Your task to perform on an android device: Open Google Chrome and click the shortcut for Amazon.com Image 0: 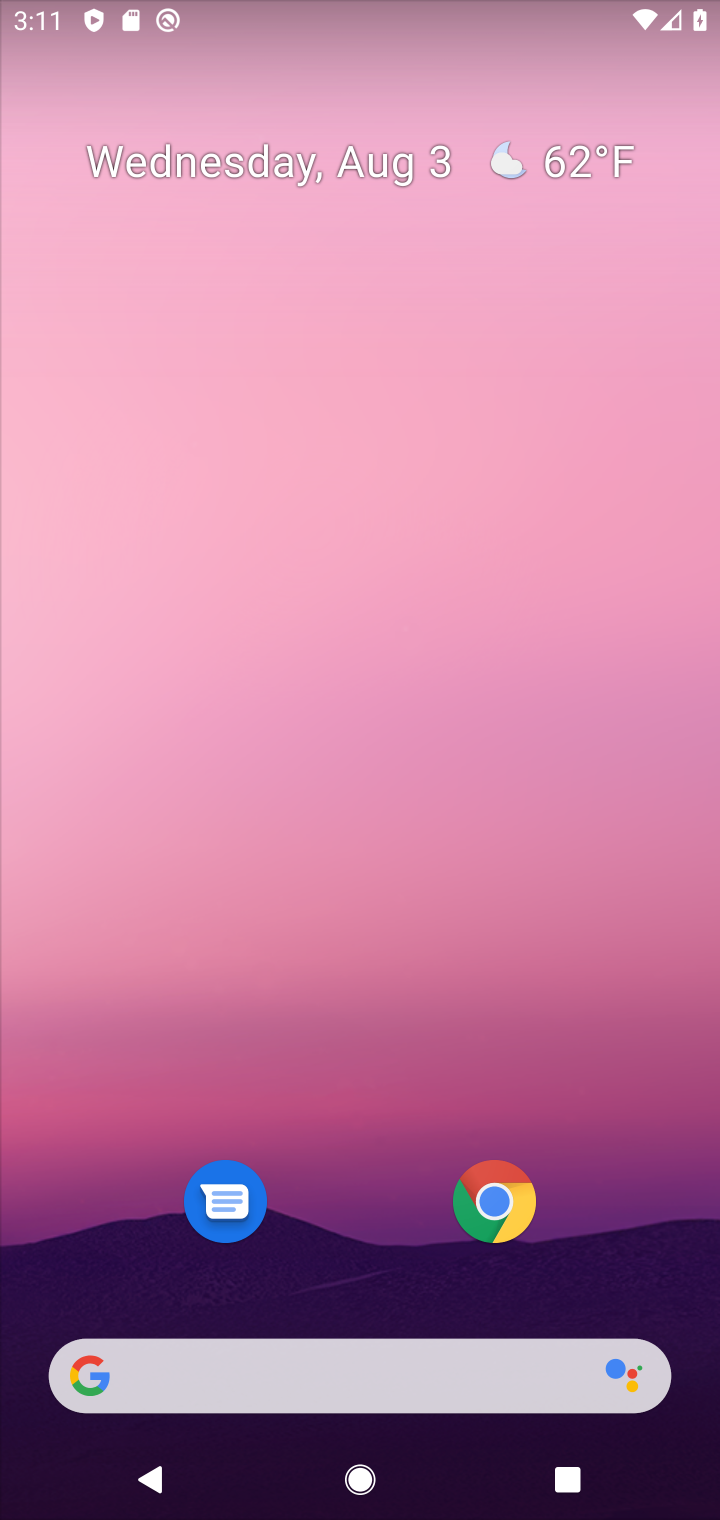
Step 0: click (511, 1207)
Your task to perform on an android device: Open Google Chrome and click the shortcut for Amazon.com Image 1: 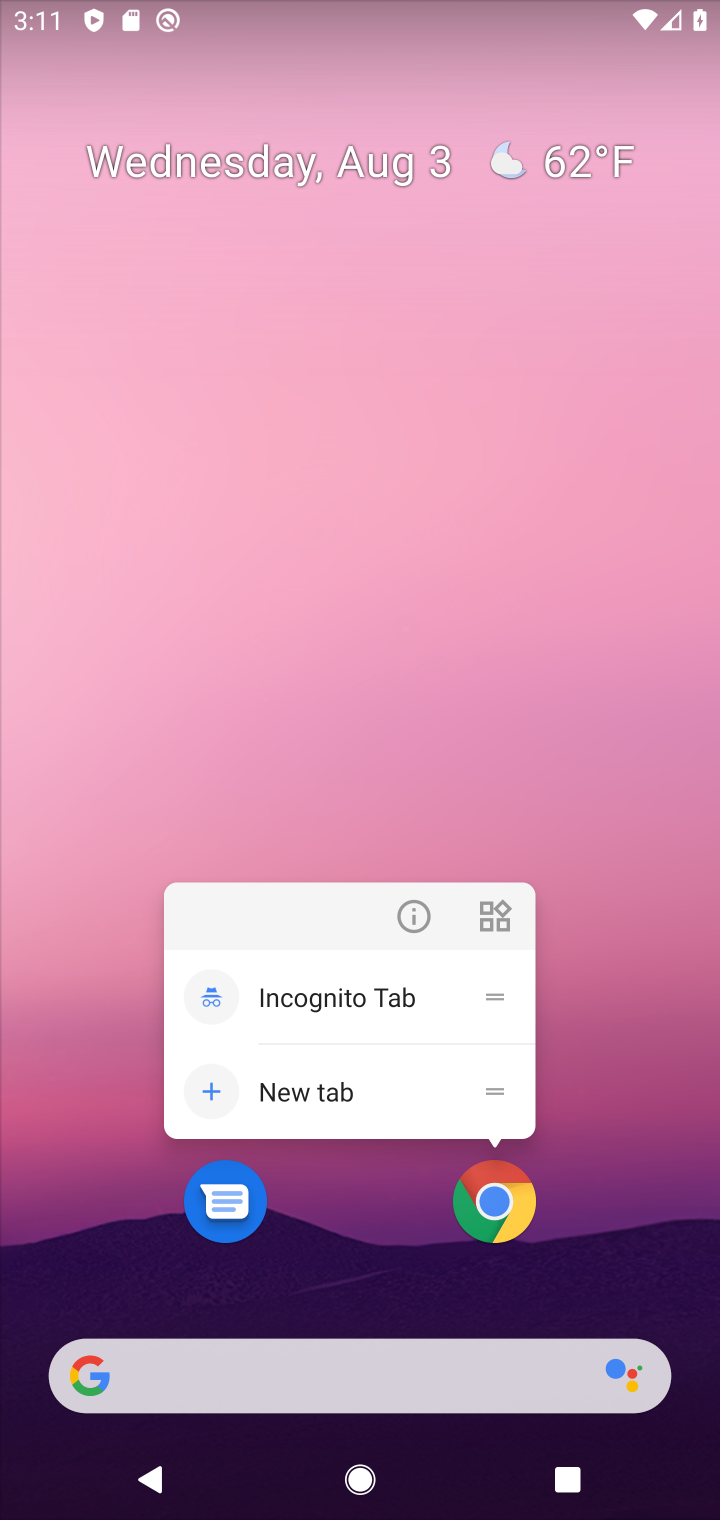
Step 1: click (494, 1191)
Your task to perform on an android device: Open Google Chrome and click the shortcut for Amazon.com Image 2: 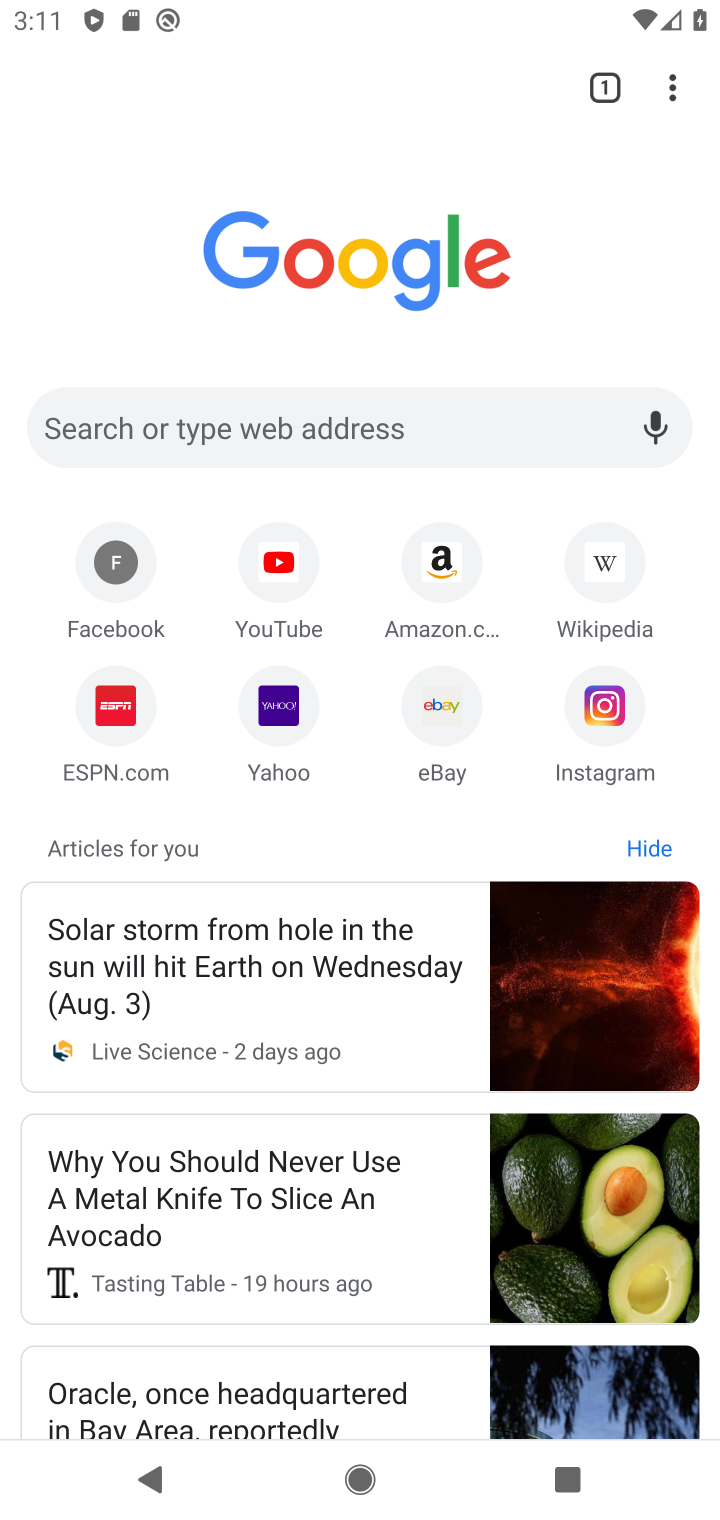
Step 2: click (427, 557)
Your task to perform on an android device: Open Google Chrome and click the shortcut for Amazon.com Image 3: 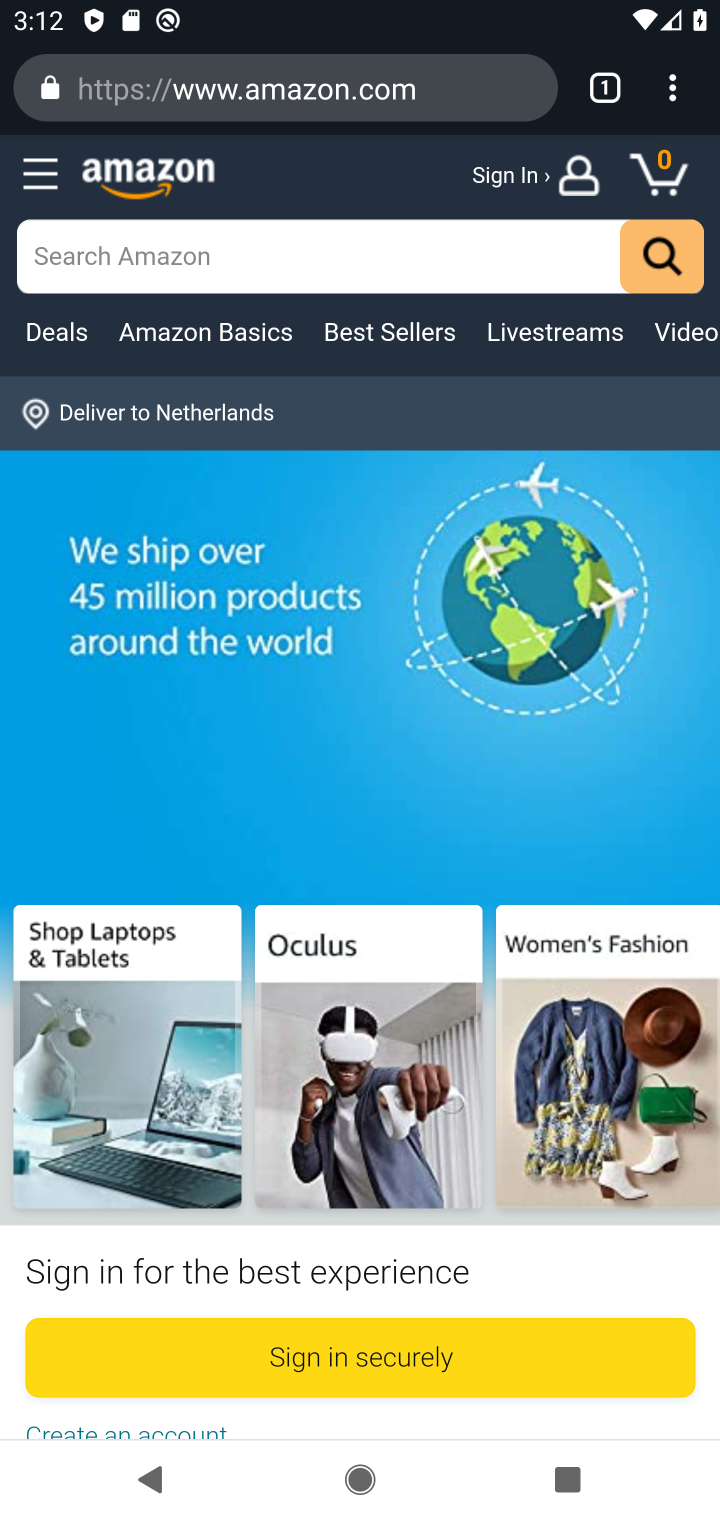
Step 3: task complete